Your task to perform on an android device: turn on translation in the chrome app Image 0: 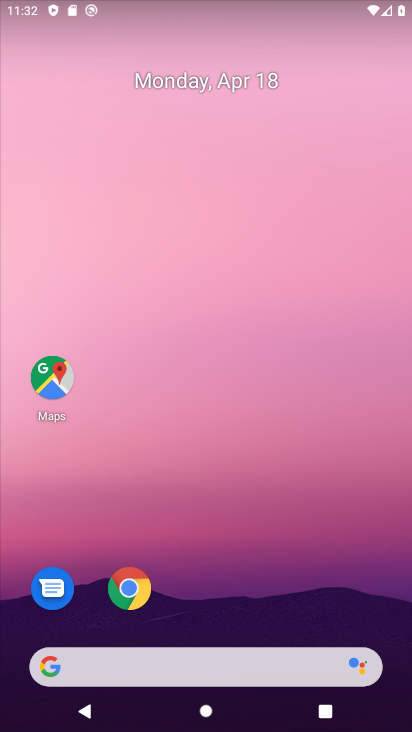
Step 0: drag from (321, 510) to (186, 10)
Your task to perform on an android device: turn on translation in the chrome app Image 1: 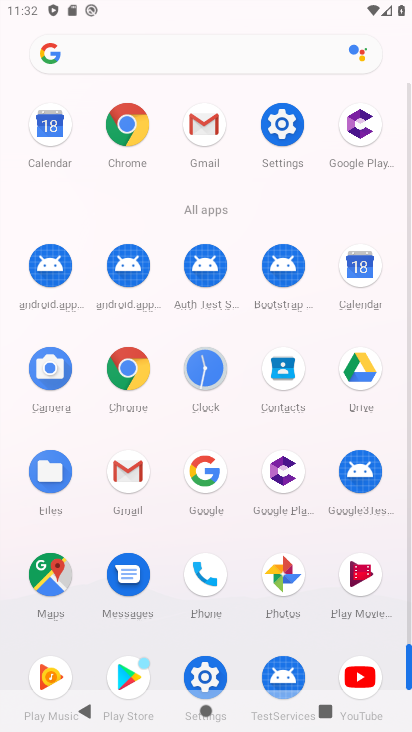
Step 1: click (125, 369)
Your task to perform on an android device: turn on translation in the chrome app Image 2: 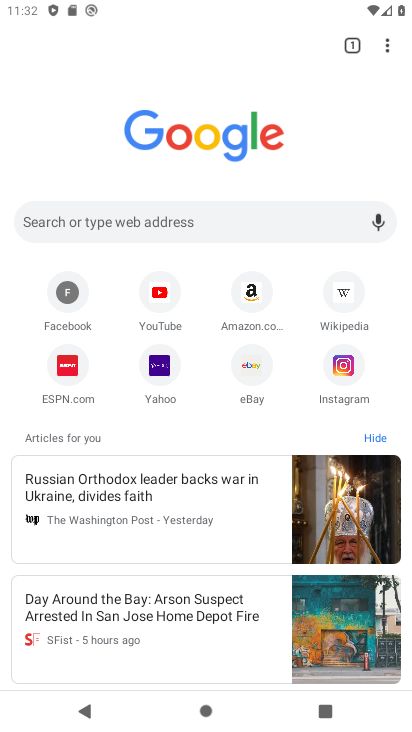
Step 2: drag from (382, 51) to (252, 377)
Your task to perform on an android device: turn on translation in the chrome app Image 3: 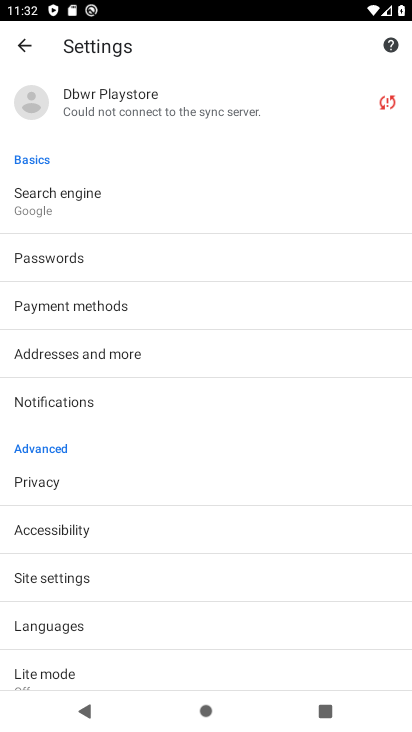
Step 3: click (108, 617)
Your task to perform on an android device: turn on translation in the chrome app Image 4: 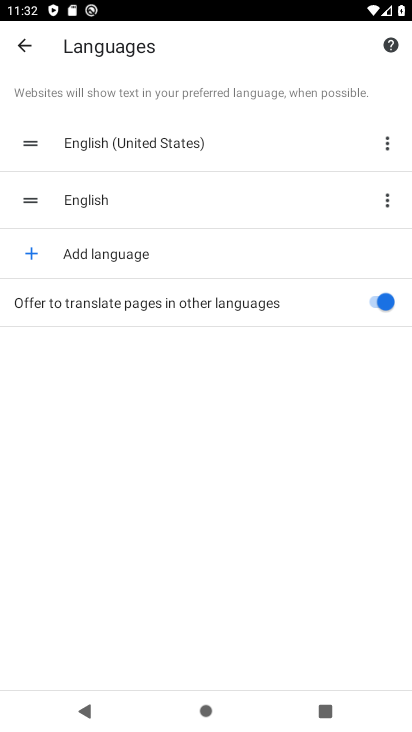
Step 4: task complete